Your task to perform on an android device: Do I have any events today? Image 0: 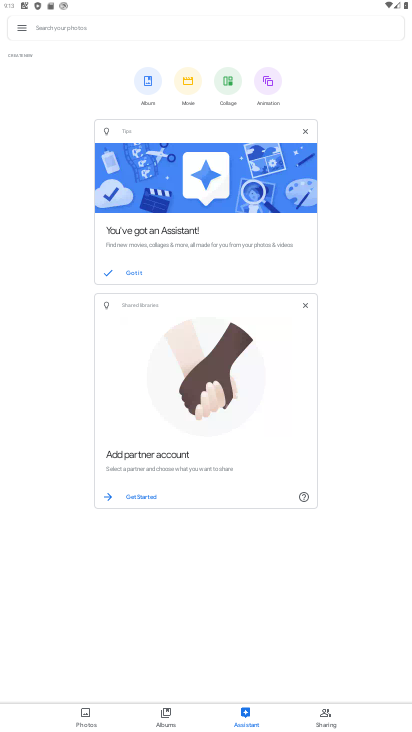
Step 0: press home button
Your task to perform on an android device: Do I have any events today? Image 1: 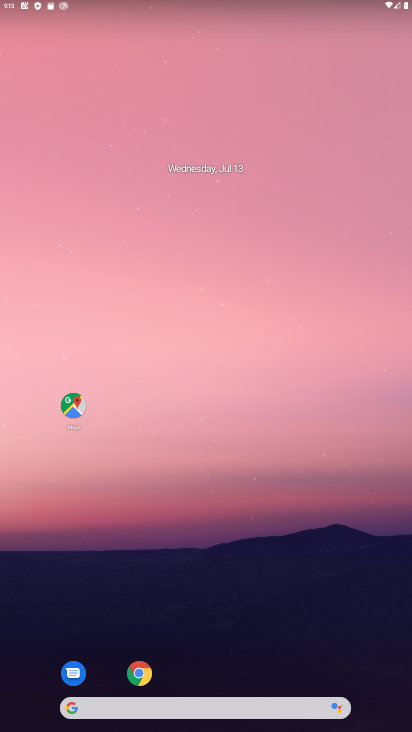
Step 1: click (198, 167)
Your task to perform on an android device: Do I have any events today? Image 2: 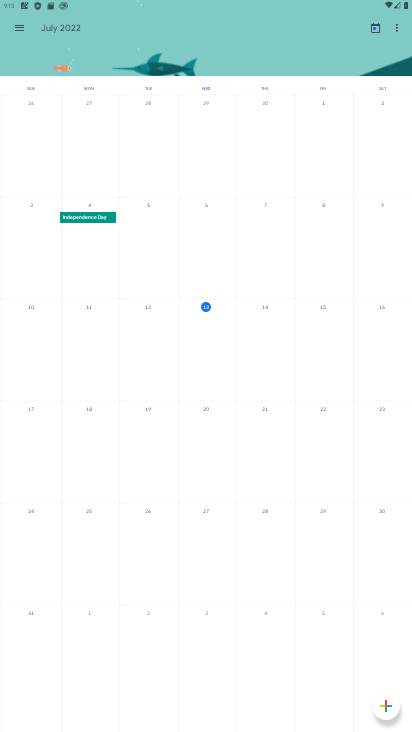
Step 2: click (14, 31)
Your task to perform on an android device: Do I have any events today? Image 3: 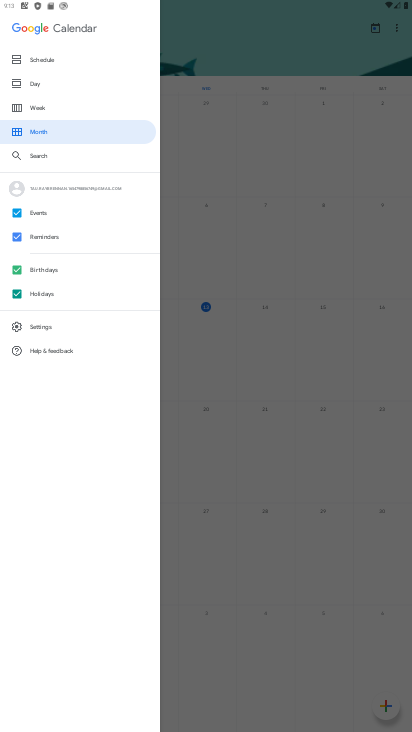
Step 3: click (19, 295)
Your task to perform on an android device: Do I have any events today? Image 4: 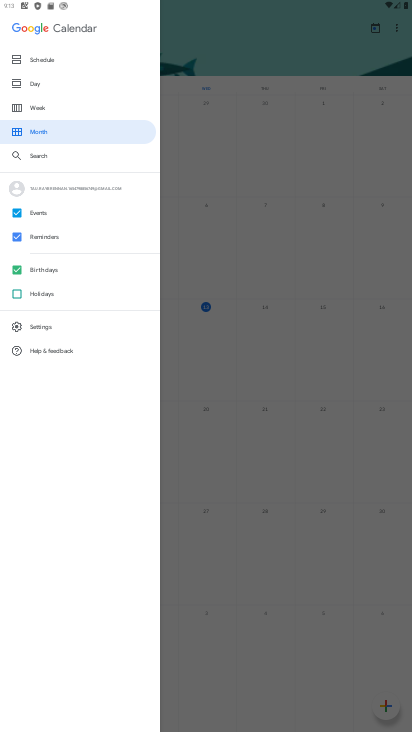
Step 4: click (16, 272)
Your task to perform on an android device: Do I have any events today? Image 5: 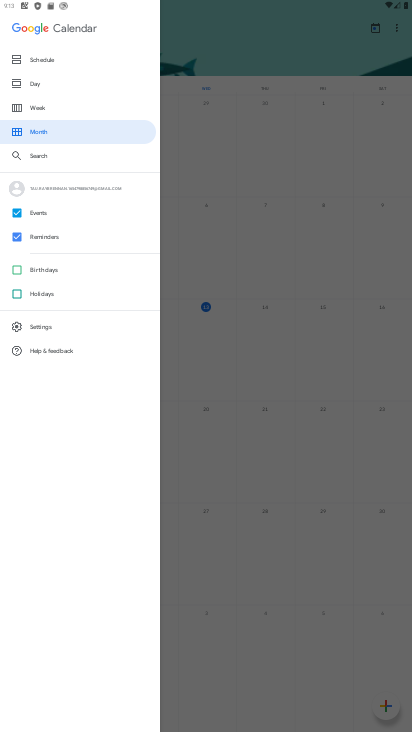
Step 5: click (15, 236)
Your task to perform on an android device: Do I have any events today? Image 6: 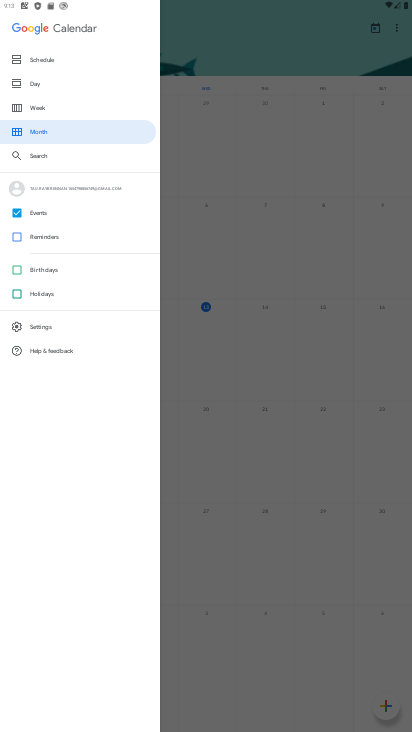
Step 6: click (31, 81)
Your task to perform on an android device: Do I have any events today? Image 7: 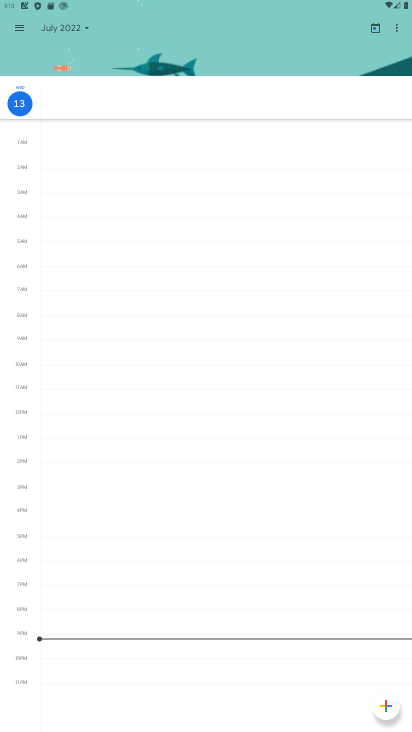
Step 7: task complete